Your task to perform on an android device: see tabs open on other devices in the chrome app Image 0: 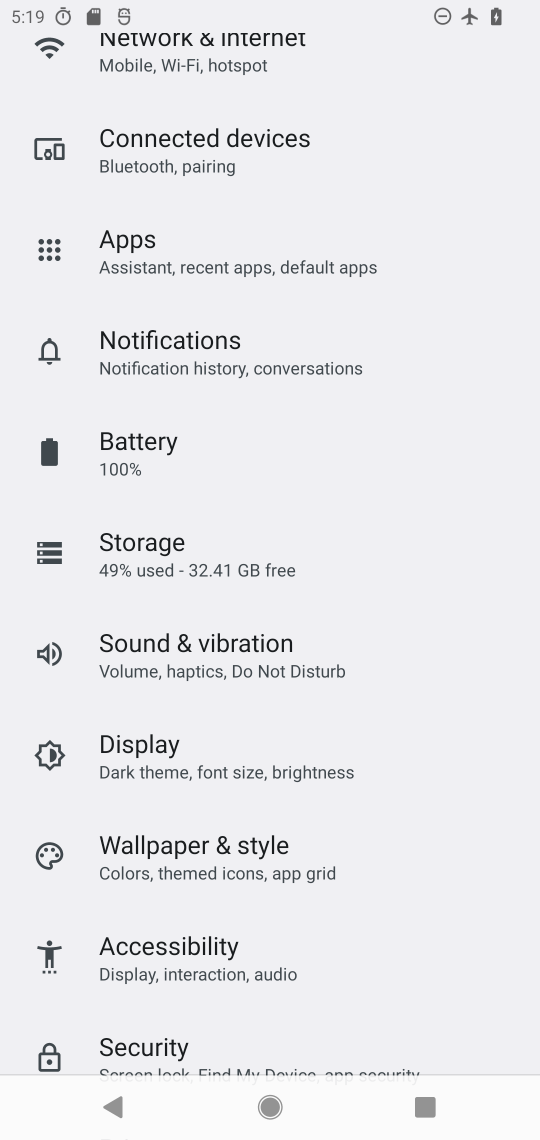
Step 0: press home button
Your task to perform on an android device: see tabs open on other devices in the chrome app Image 1: 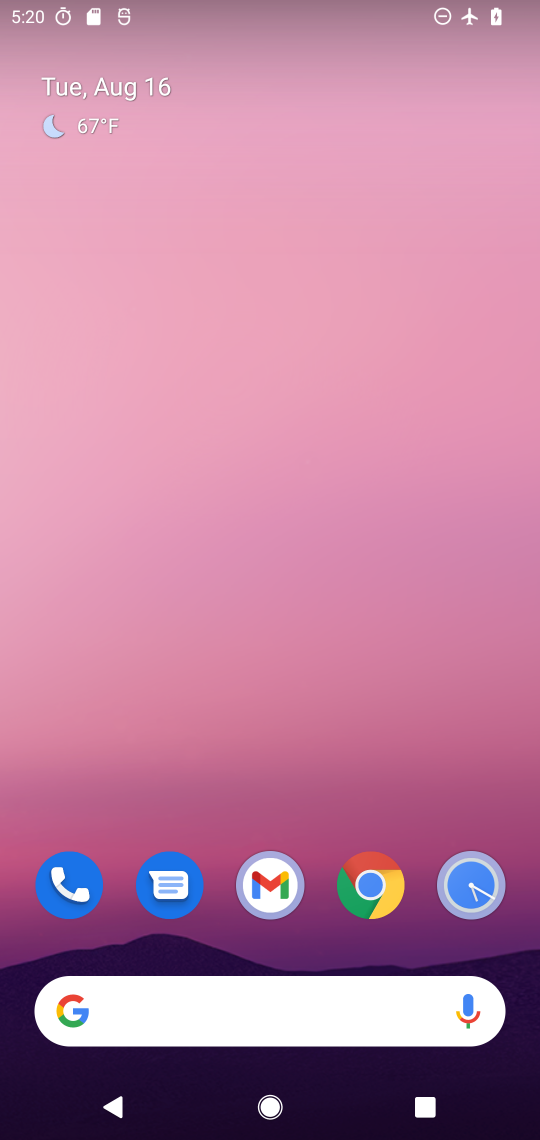
Step 1: drag from (180, 761) to (206, 213)
Your task to perform on an android device: see tabs open on other devices in the chrome app Image 2: 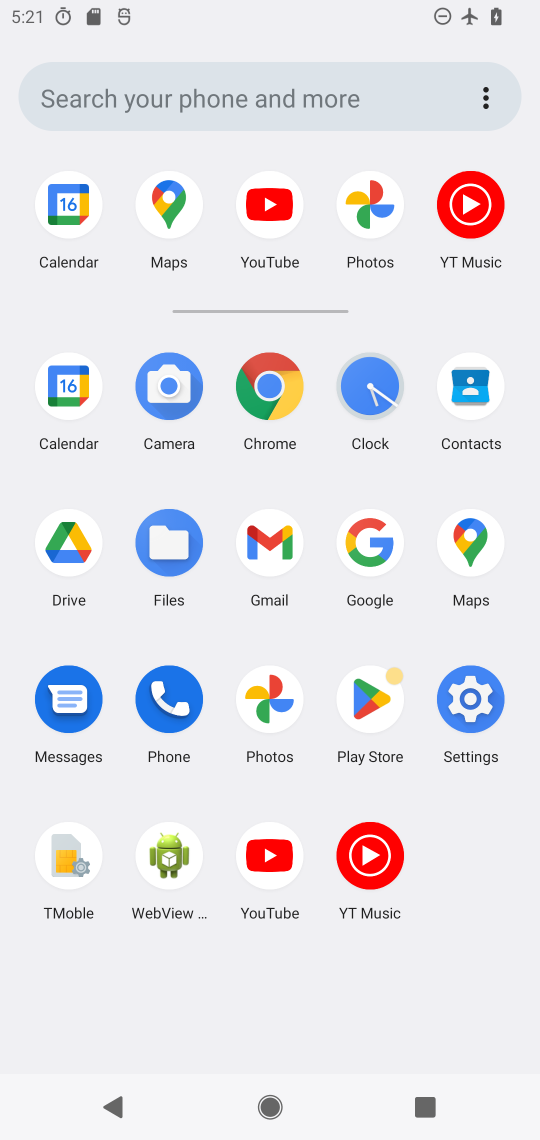
Step 2: click (252, 390)
Your task to perform on an android device: see tabs open on other devices in the chrome app Image 3: 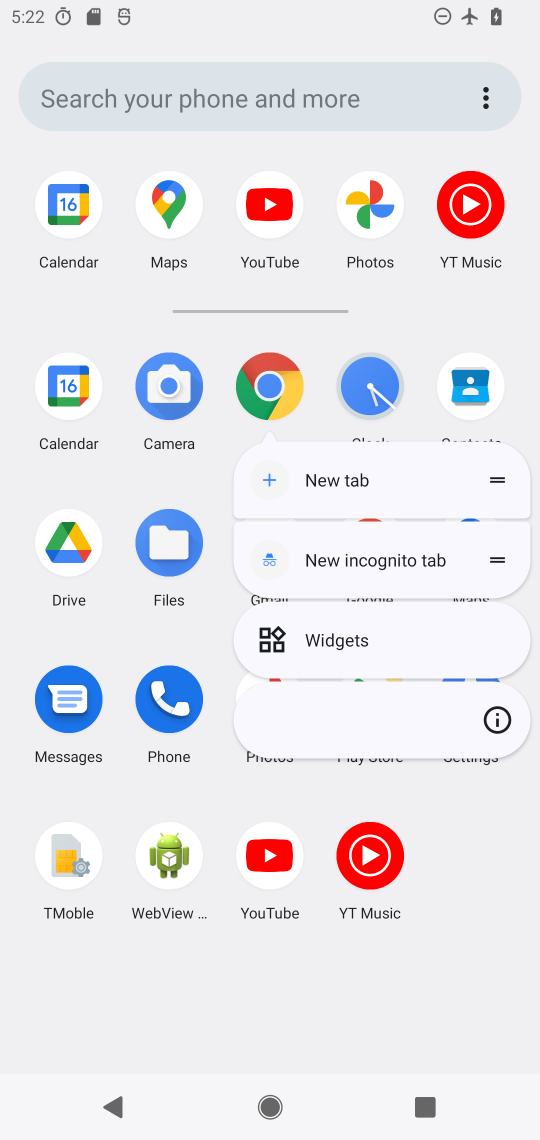
Step 3: click (269, 374)
Your task to perform on an android device: see tabs open on other devices in the chrome app Image 4: 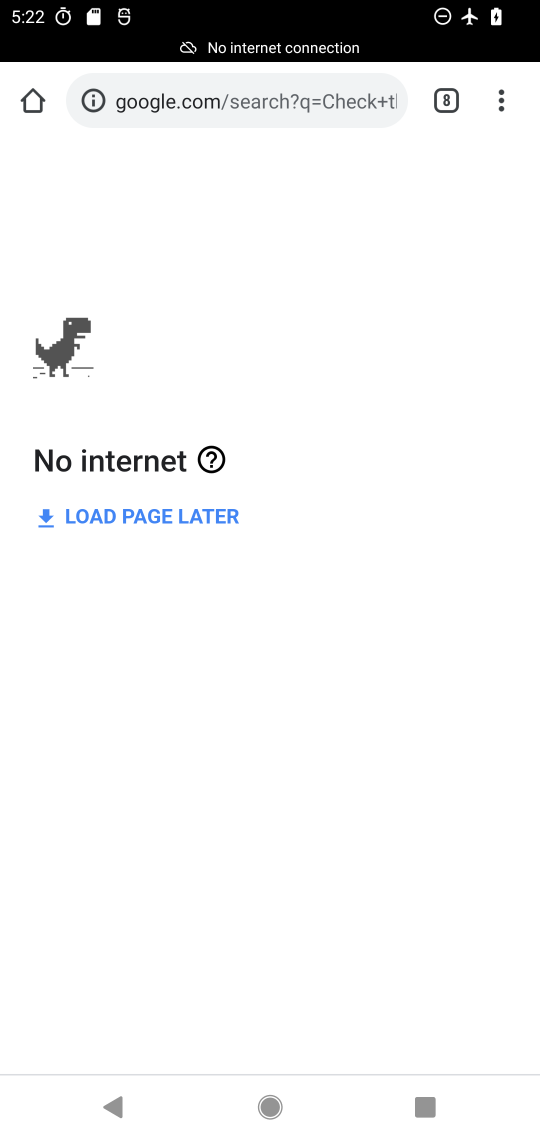
Step 4: click (511, 81)
Your task to perform on an android device: see tabs open on other devices in the chrome app Image 5: 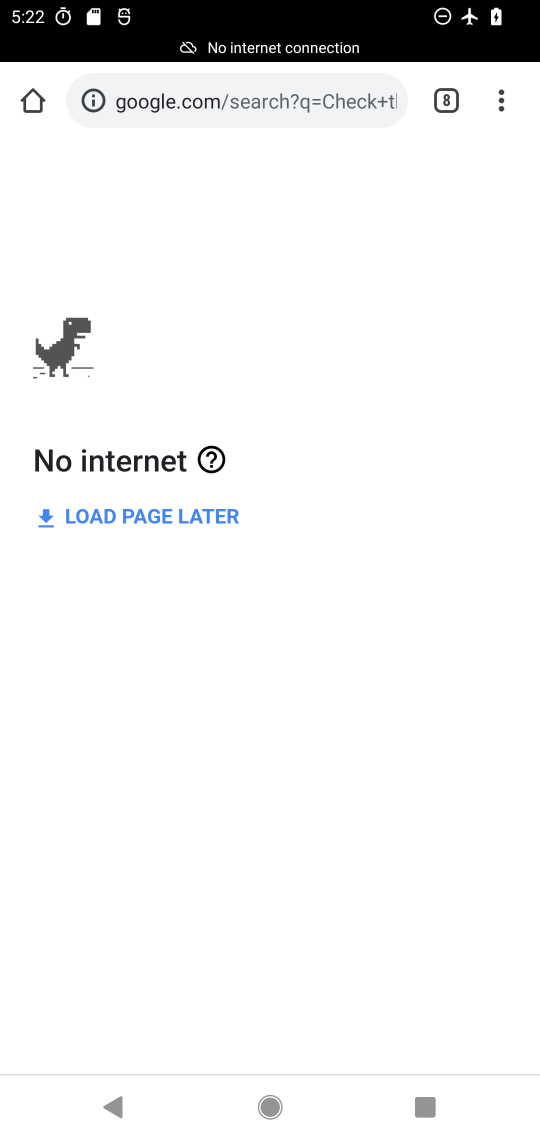
Step 5: click (490, 73)
Your task to perform on an android device: see tabs open on other devices in the chrome app Image 6: 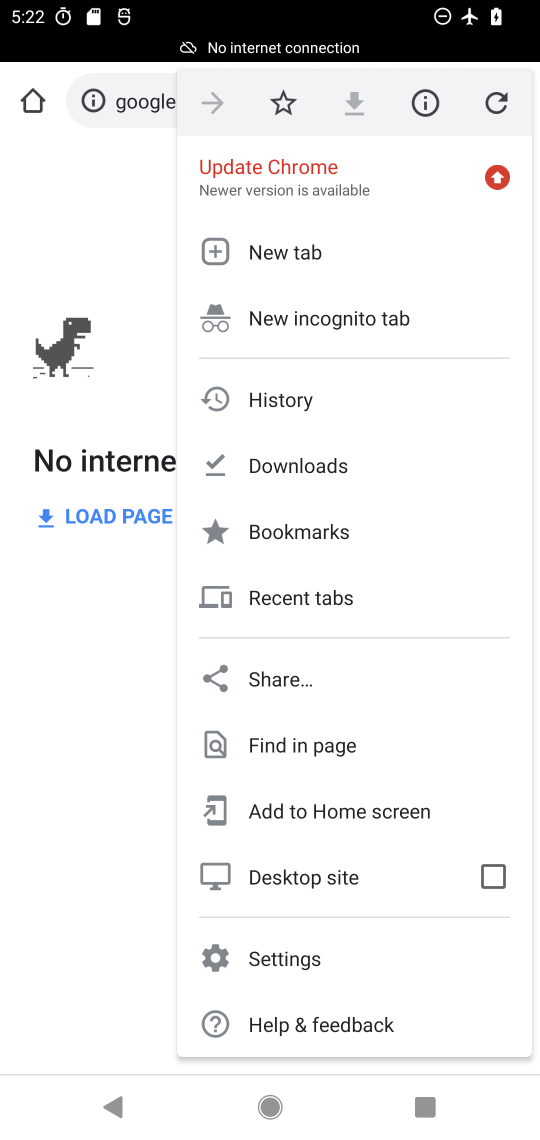
Step 6: click (300, 379)
Your task to perform on an android device: see tabs open on other devices in the chrome app Image 7: 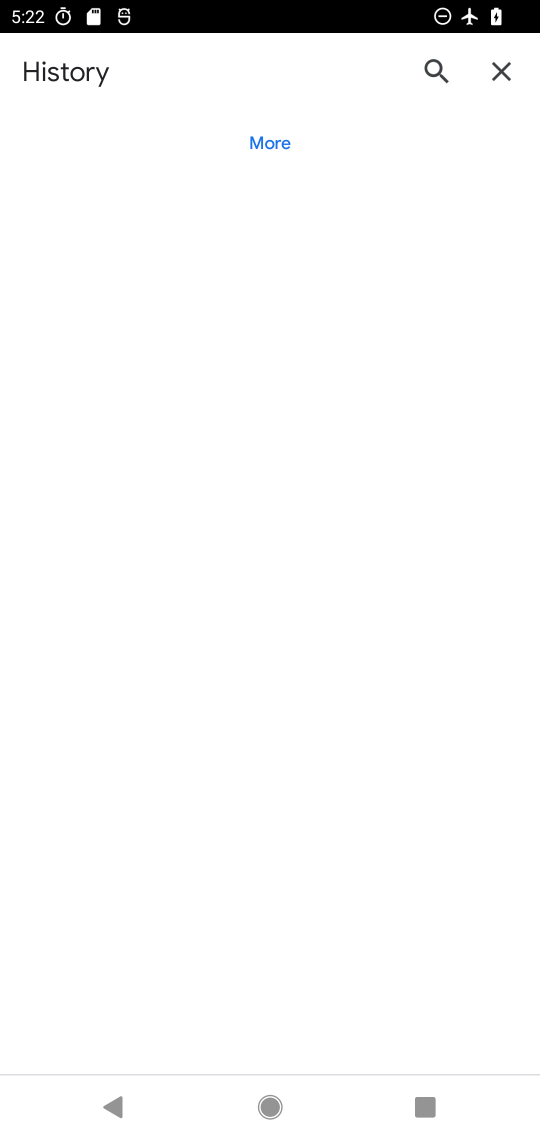
Step 7: task complete